Your task to perform on an android device: Clear the shopping cart on newegg. Add "logitech g pro" to the cart on newegg Image 0: 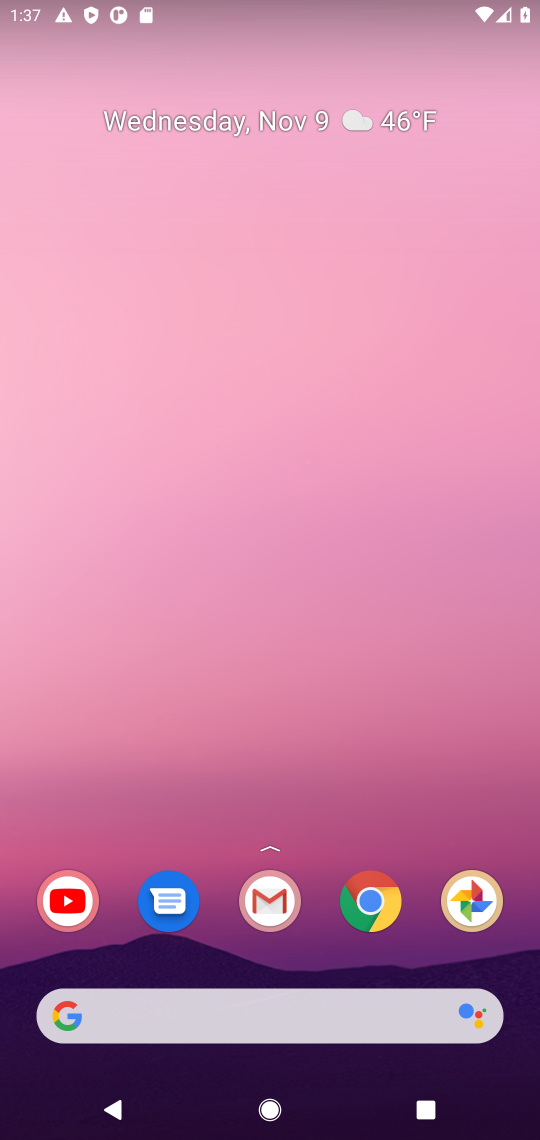
Step 0: click (373, 901)
Your task to perform on an android device: Clear the shopping cart on newegg. Add "logitech g pro" to the cart on newegg Image 1: 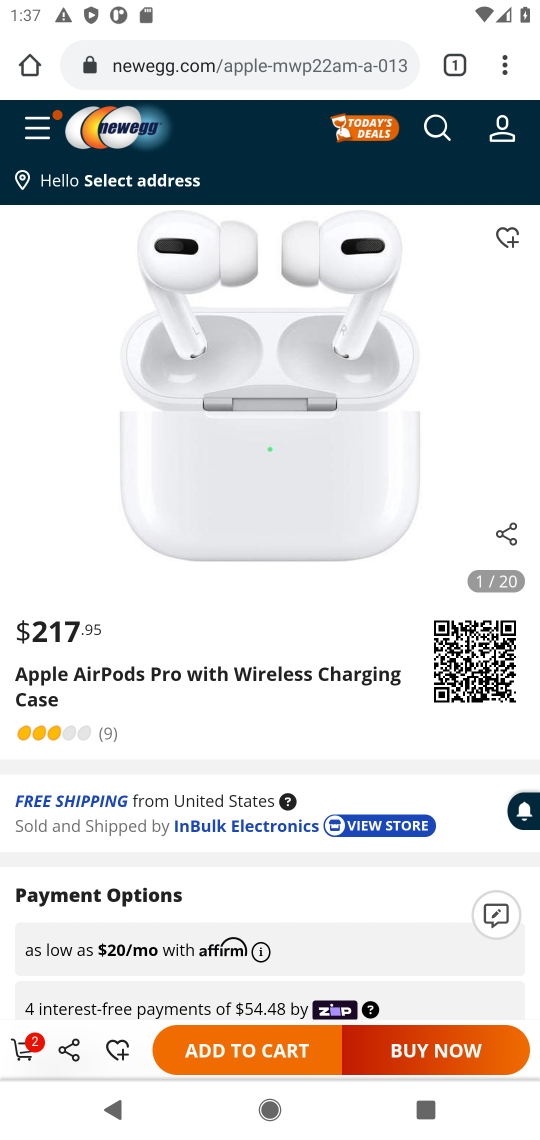
Step 1: click (16, 1052)
Your task to perform on an android device: Clear the shopping cart on newegg. Add "logitech g pro" to the cart on newegg Image 2: 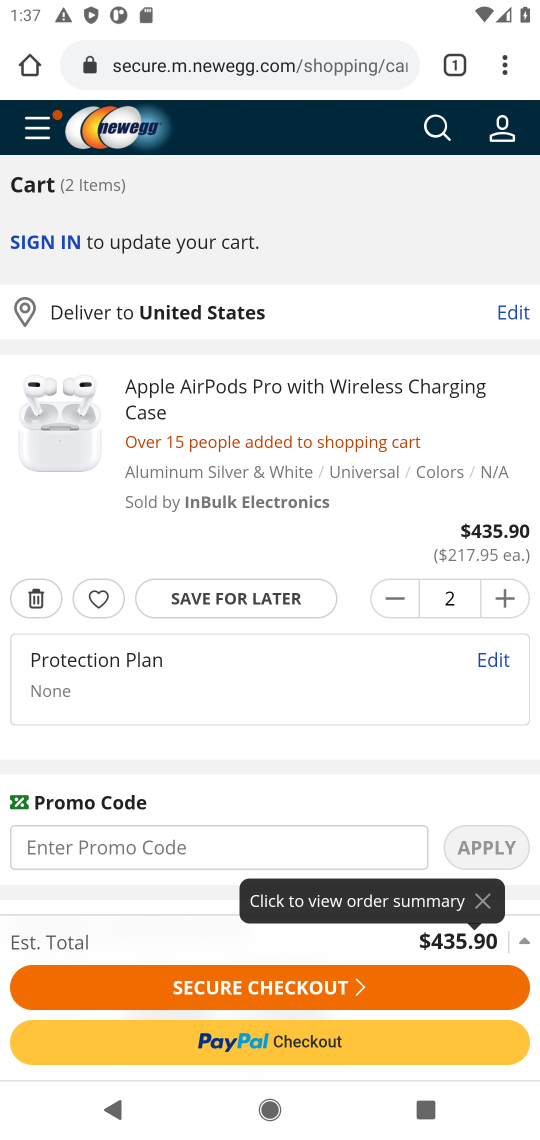
Step 2: click (31, 599)
Your task to perform on an android device: Clear the shopping cart on newegg. Add "logitech g pro" to the cart on newegg Image 3: 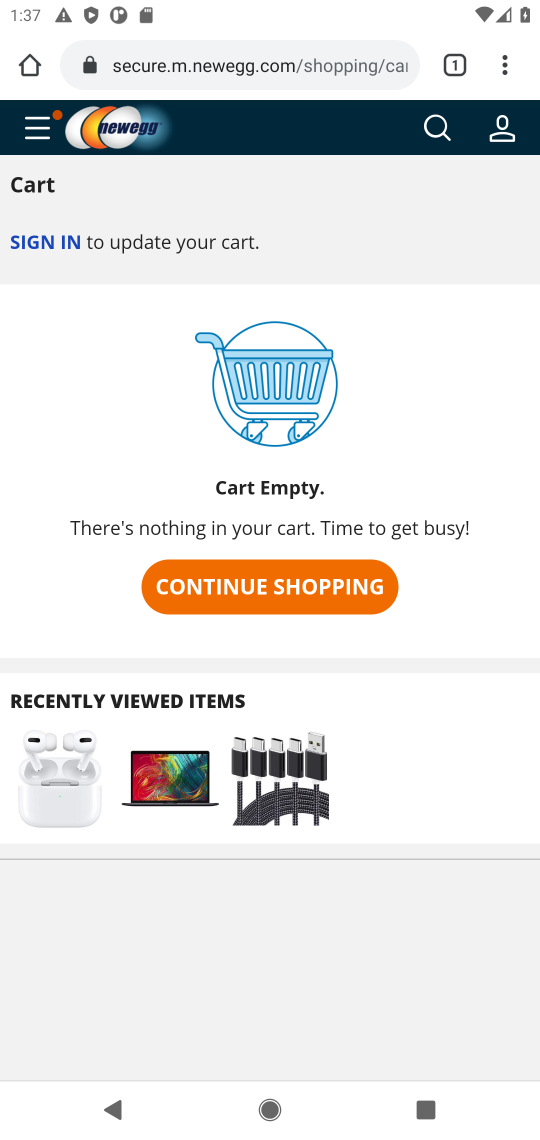
Step 3: click (429, 137)
Your task to perform on an android device: Clear the shopping cart on newegg. Add "logitech g pro" to the cart on newegg Image 4: 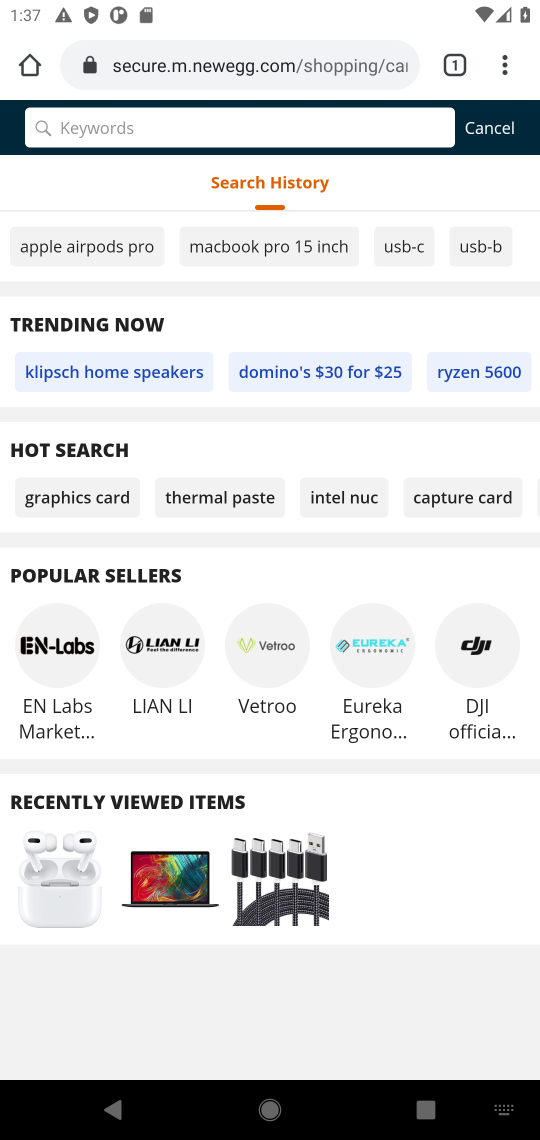
Step 4: type "logitech g pro"
Your task to perform on an android device: Clear the shopping cart on newegg. Add "logitech g pro" to the cart on newegg Image 5: 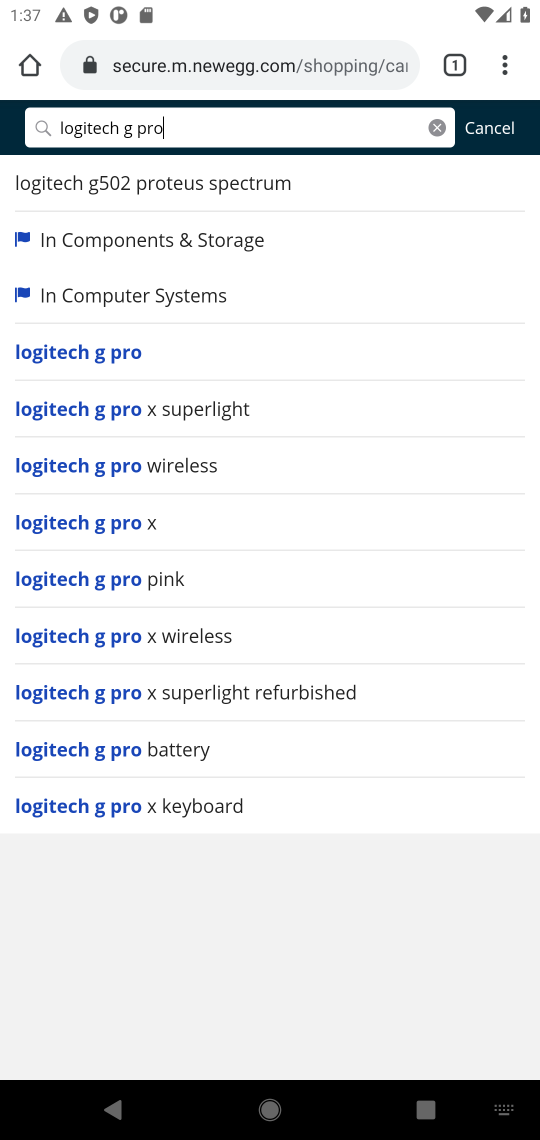
Step 5: click (114, 352)
Your task to perform on an android device: Clear the shopping cart on newegg. Add "logitech g pro" to the cart on newegg Image 6: 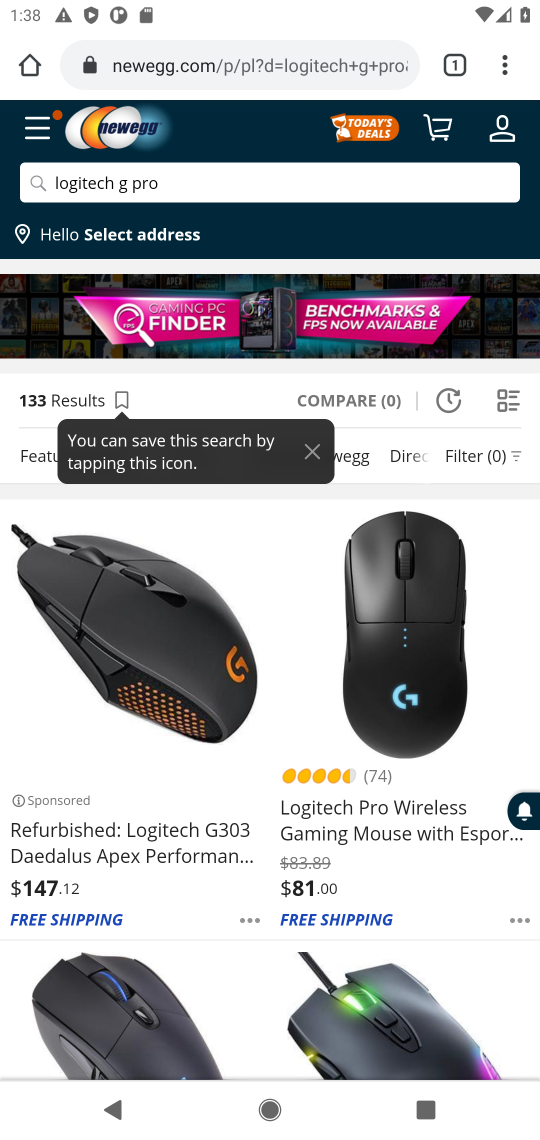
Step 6: drag from (441, 827) to (388, 206)
Your task to perform on an android device: Clear the shopping cart on newegg. Add "logitech g pro" to the cart on newegg Image 7: 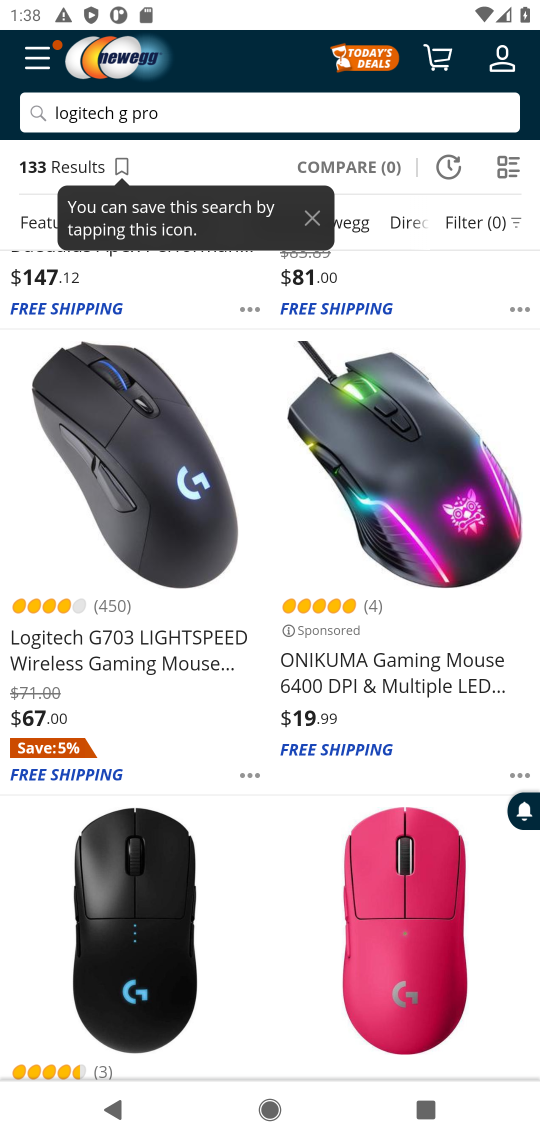
Step 7: drag from (372, 766) to (386, 309)
Your task to perform on an android device: Clear the shopping cart on newegg. Add "logitech g pro" to the cart on newegg Image 8: 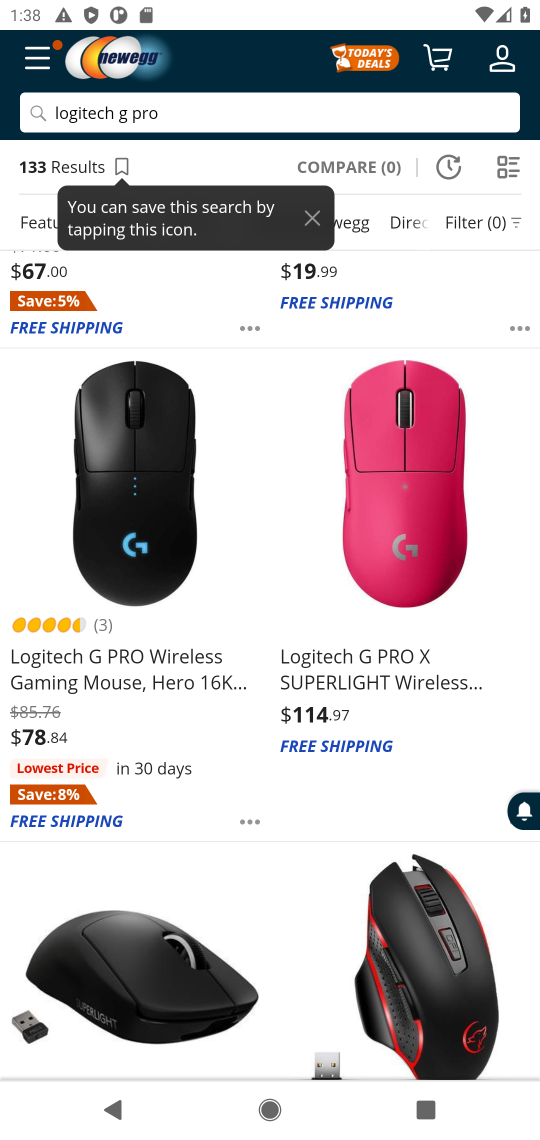
Step 8: click (104, 512)
Your task to perform on an android device: Clear the shopping cart on newegg. Add "logitech g pro" to the cart on newegg Image 9: 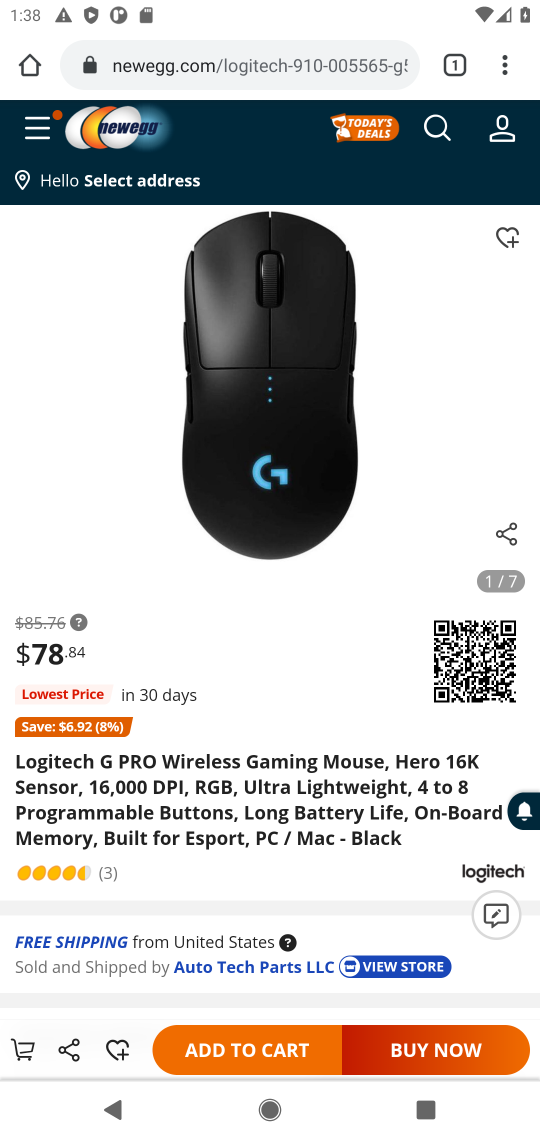
Step 9: click (240, 1053)
Your task to perform on an android device: Clear the shopping cart on newegg. Add "logitech g pro" to the cart on newegg Image 10: 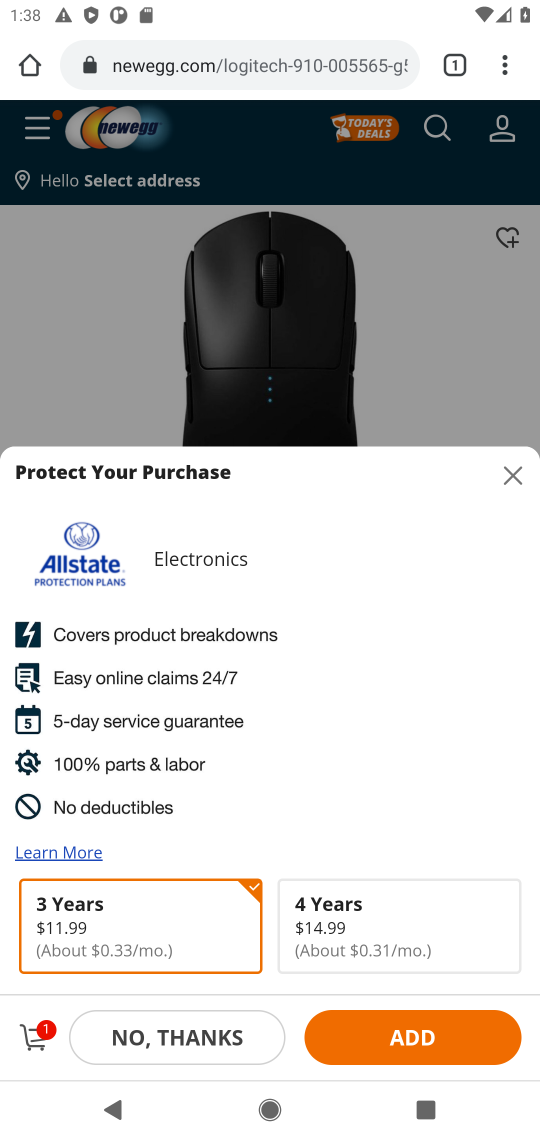
Step 10: click (509, 467)
Your task to perform on an android device: Clear the shopping cart on newegg. Add "logitech g pro" to the cart on newegg Image 11: 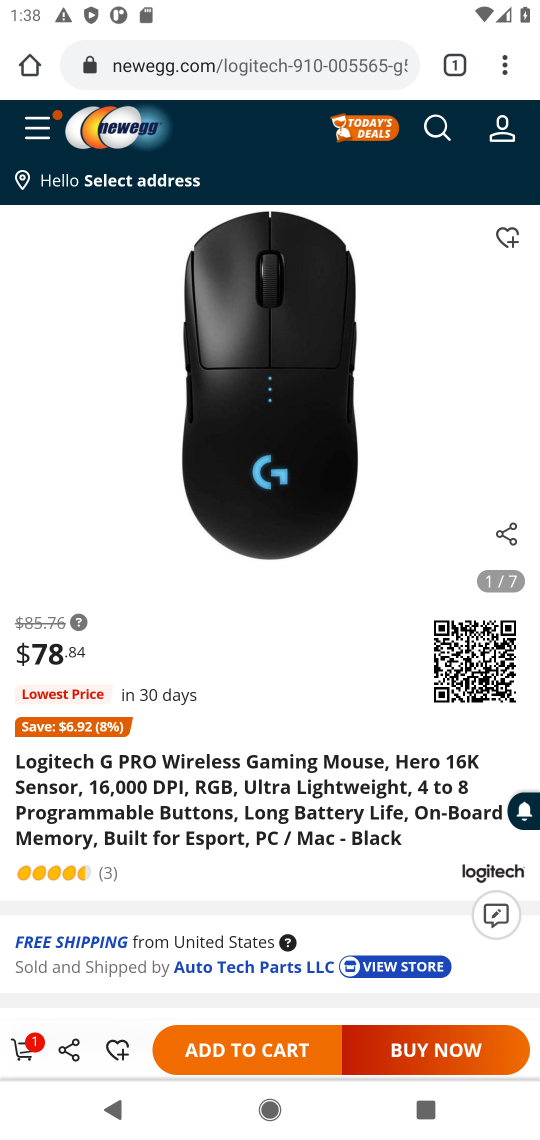
Step 11: task complete